Your task to perform on an android device: turn on the 24-hour format for clock Image 0: 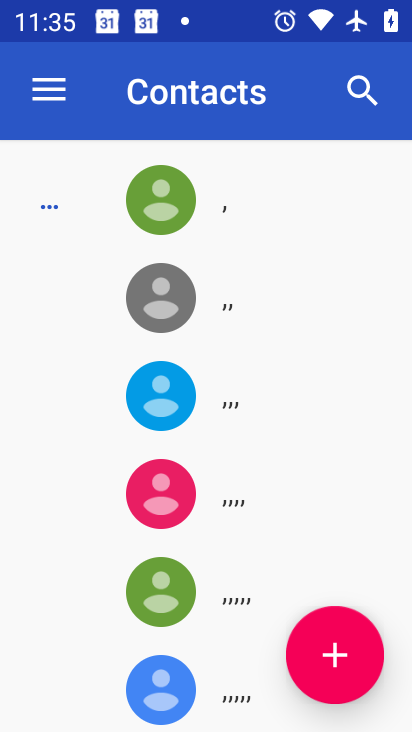
Step 0: press home button
Your task to perform on an android device: turn on the 24-hour format for clock Image 1: 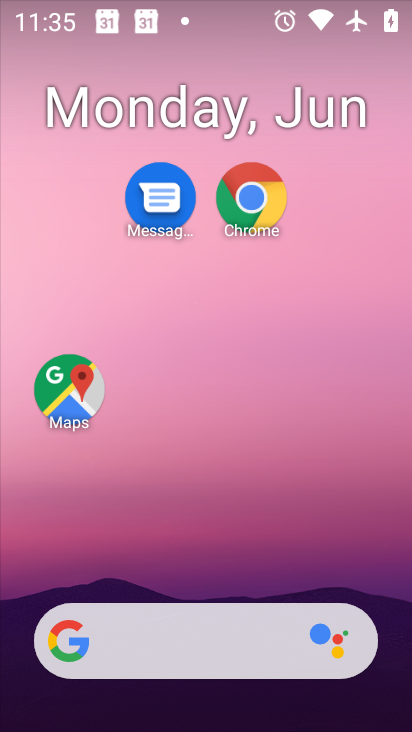
Step 1: drag from (174, 565) to (183, 245)
Your task to perform on an android device: turn on the 24-hour format for clock Image 2: 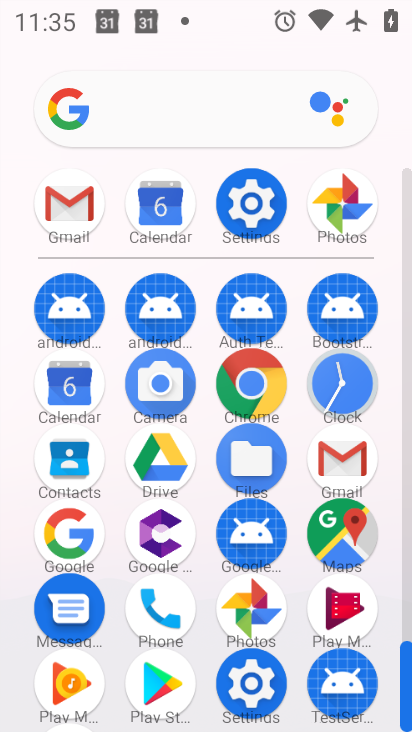
Step 2: click (334, 362)
Your task to perform on an android device: turn on the 24-hour format for clock Image 3: 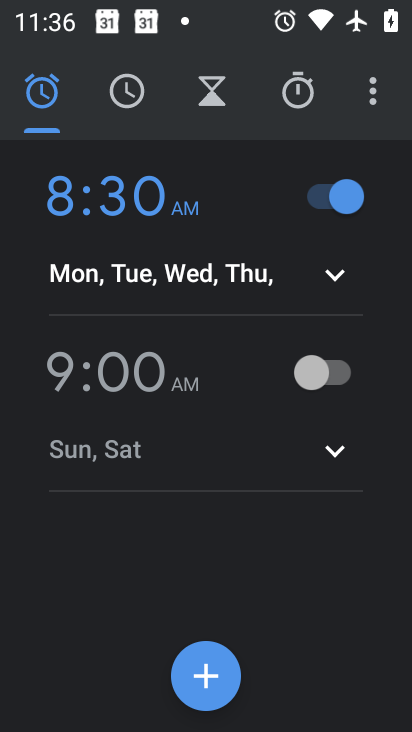
Step 3: click (365, 82)
Your task to perform on an android device: turn on the 24-hour format for clock Image 4: 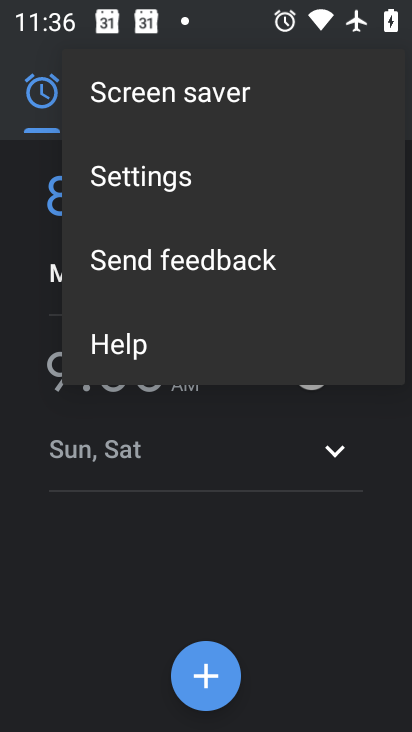
Step 4: click (124, 173)
Your task to perform on an android device: turn on the 24-hour format for clock Image 5: 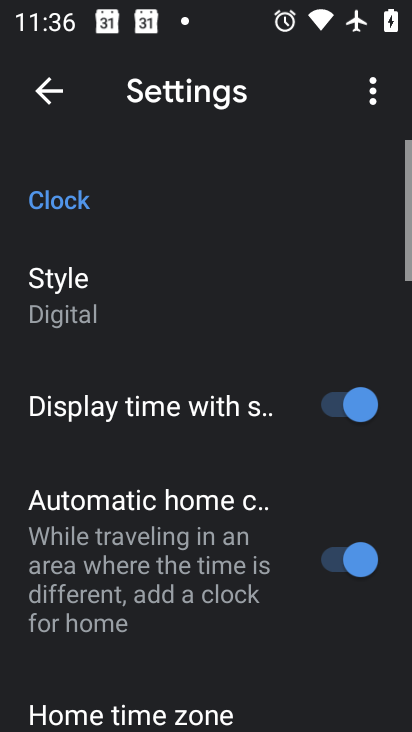
Step 5: drag from (232, 611) to (272, 207)
Your task to perform on an android device: turn on the 24-hour format for clock Image 6: 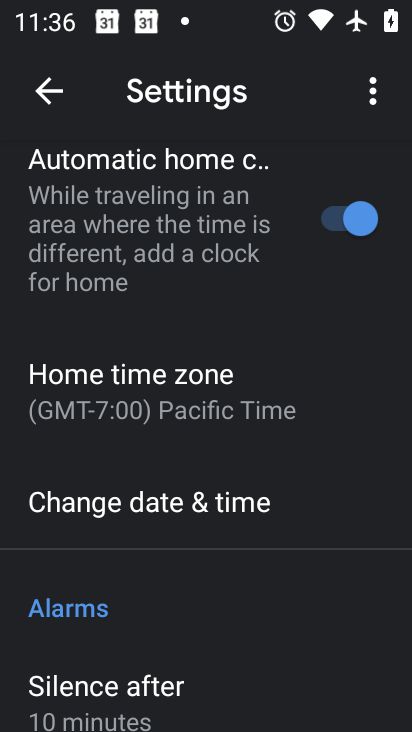
Step 6: click (212, 505)
Your task to perform on an android device: turn on the 24-hour format for clock Image 7: 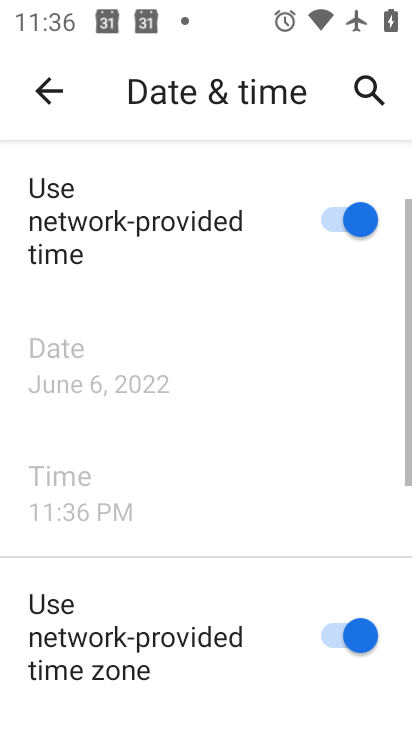
Step 7: drag from (226, 578) to (240, 172)
Your task to perform on an android device: turn on the 24-hour format for clock Image 8: 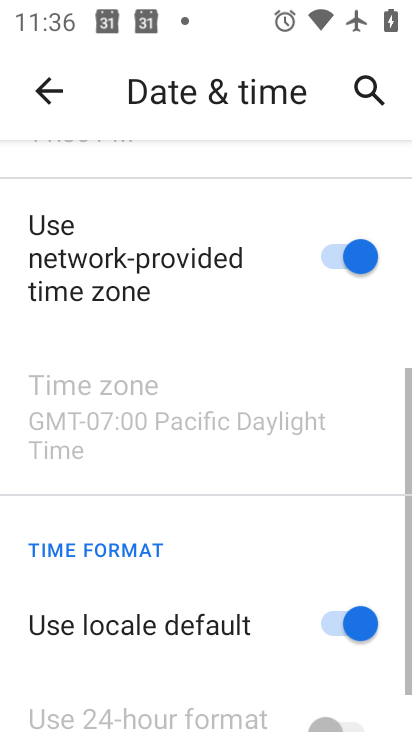
Step 8: drag from (207, 543) to (211, 257)
Your task to perform on an android device: turn on the 24-hour format for clock Image 9: 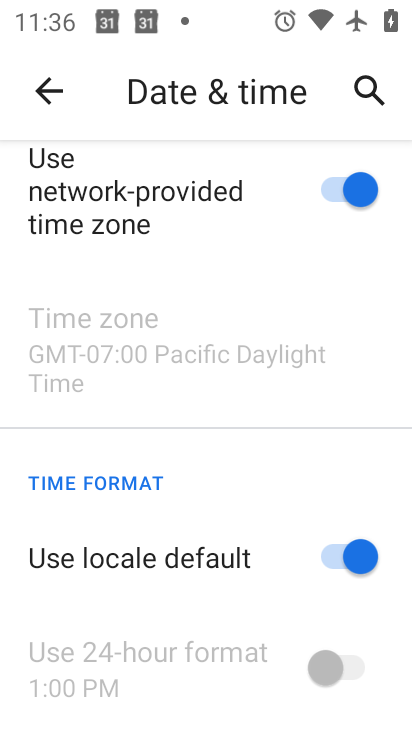
Step 9: click (325, 559)
Your task to perform on an android device: turn on the 24-hour format for clock Image 10: 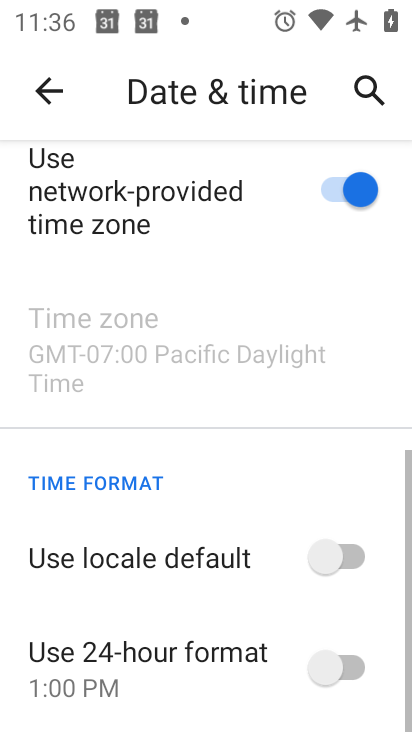
Step 10: click (348, 675)
Your task to perform on an android device: turn on the 24-hour format for clock Image 11: 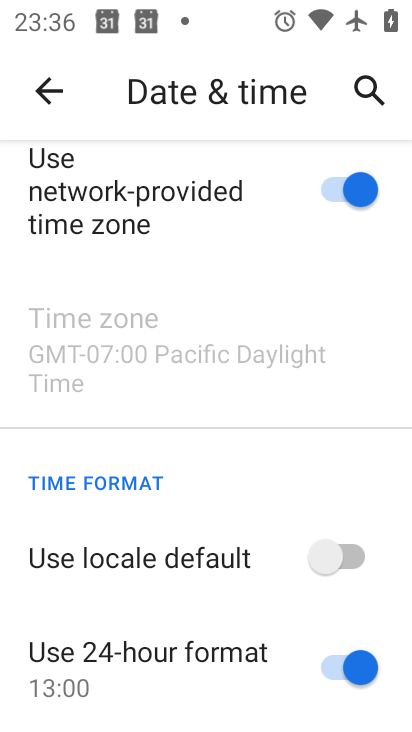
Step 11: task complete